Your task to perform on an android device: turn pop-ups off in chrome Image 0: 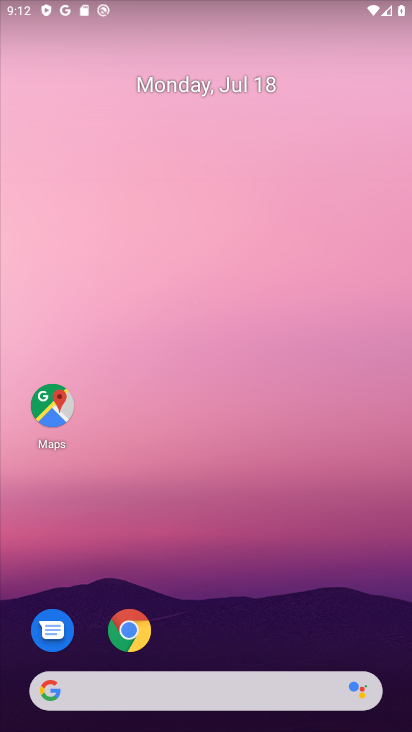
Step 0: drag from (395, 665) to (288, 27)
Your task to perform on an android device: turn pop-ups off in chrome Image 1: 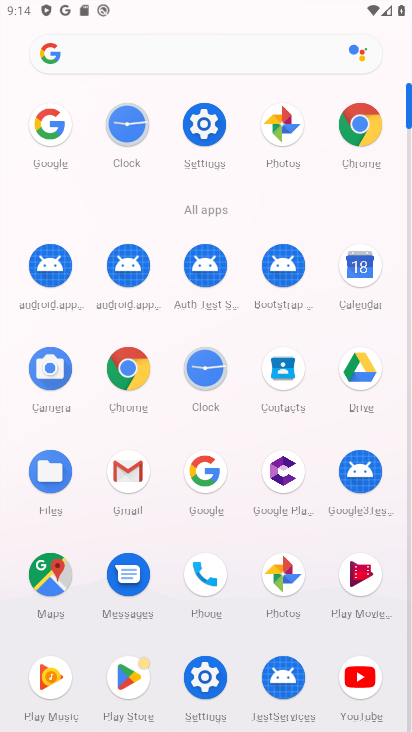
Step 1: click (373, 134)
Your task to perform on an android device: turn pop-ups off in chrome Image 2: 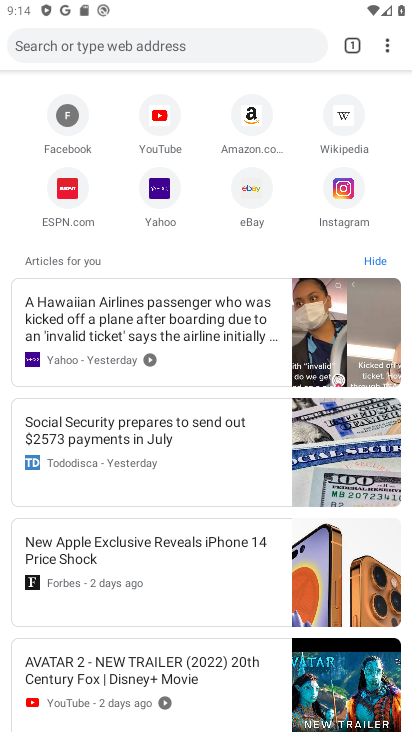
Step 2: click (388, 40)
Your task to perform on an android device: turn pop-ups off in chrome Image 3: 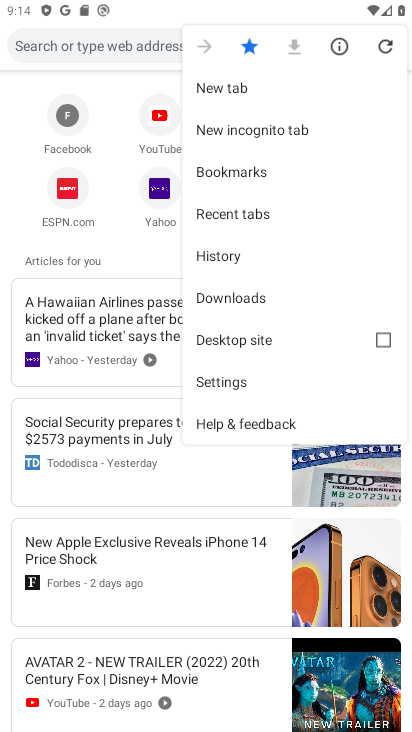
Step 3: click (252, 389)
Your task to perform on an android device: turn pop-ups off in chrome Image 4: 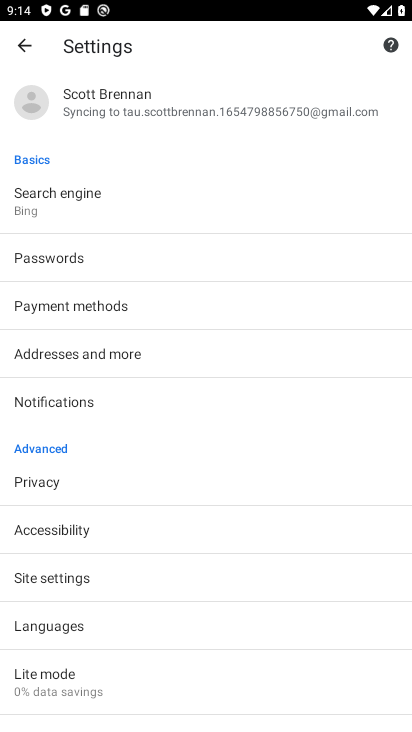
Step 4: click (93, 572)
Your task to perform on an android device: turn pop-ups off in chrome Image 5: 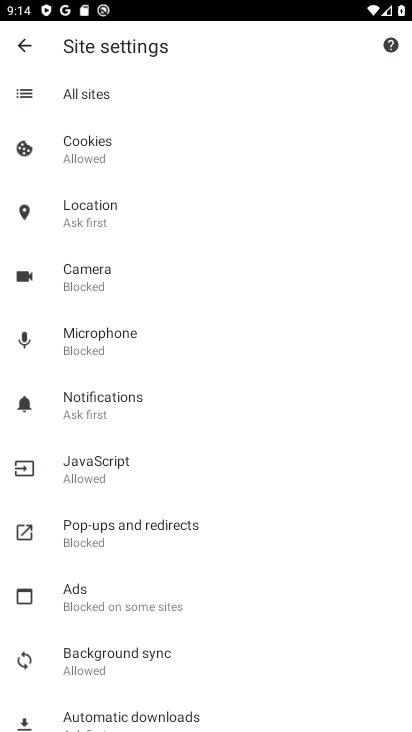
Step 5: click (89, 542)
Your task to perform on an android device: turn pop-ups off in chrome Image 6: 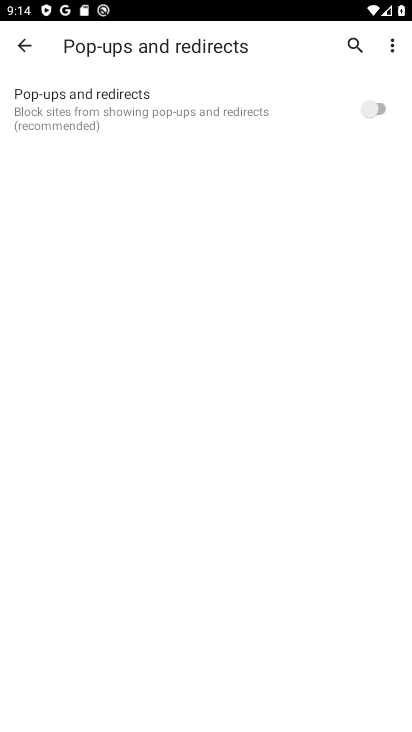
Step 6: click (387, 121)
Your task to perform on an android device: turn pop-ups off in chrome Image 7: 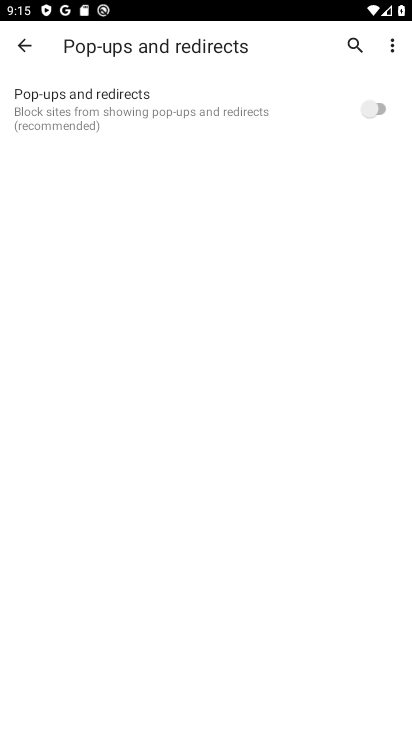
Step 7: click (387, 121)
Your task to perform on an android device: turn pop-ups off in chrome Image 8: 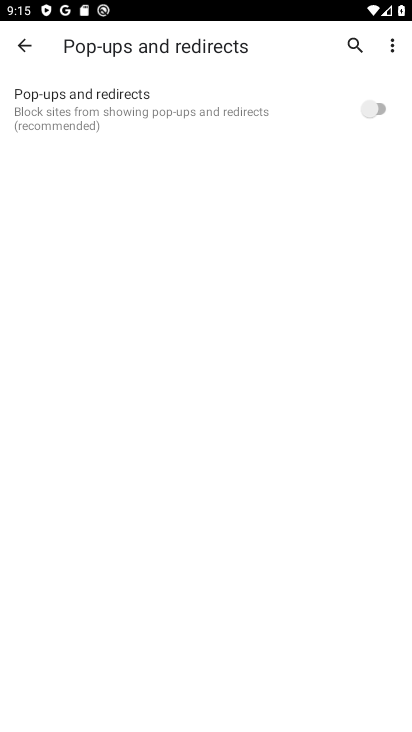
Step 8: task complete